Your task to perform on an android device: Go to eBay Image 0: 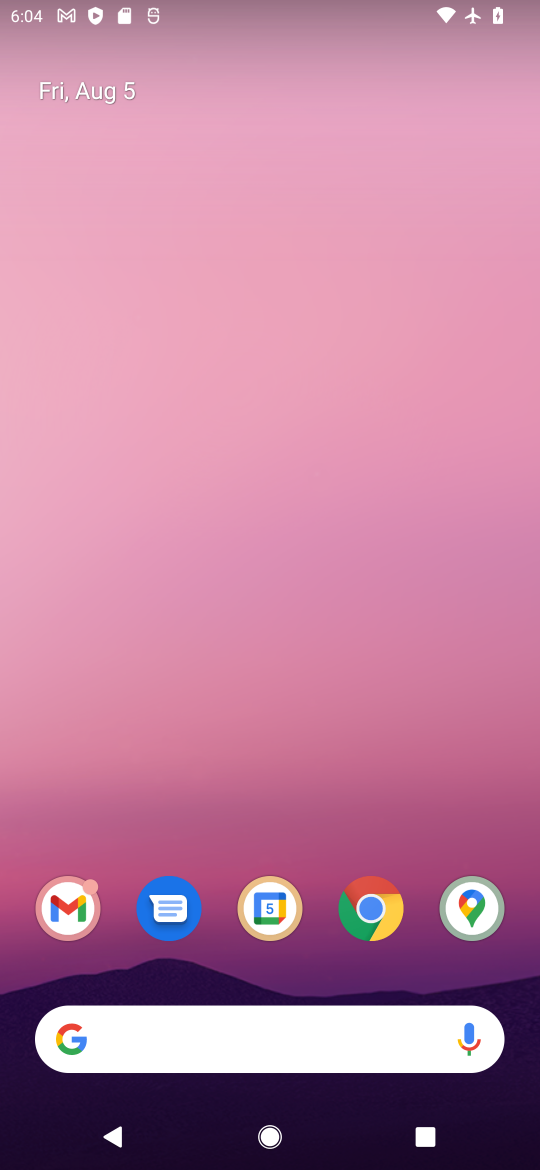
Step 0: click (379, 907)
Your task to perform on an android device: Go to eBay Image 1: 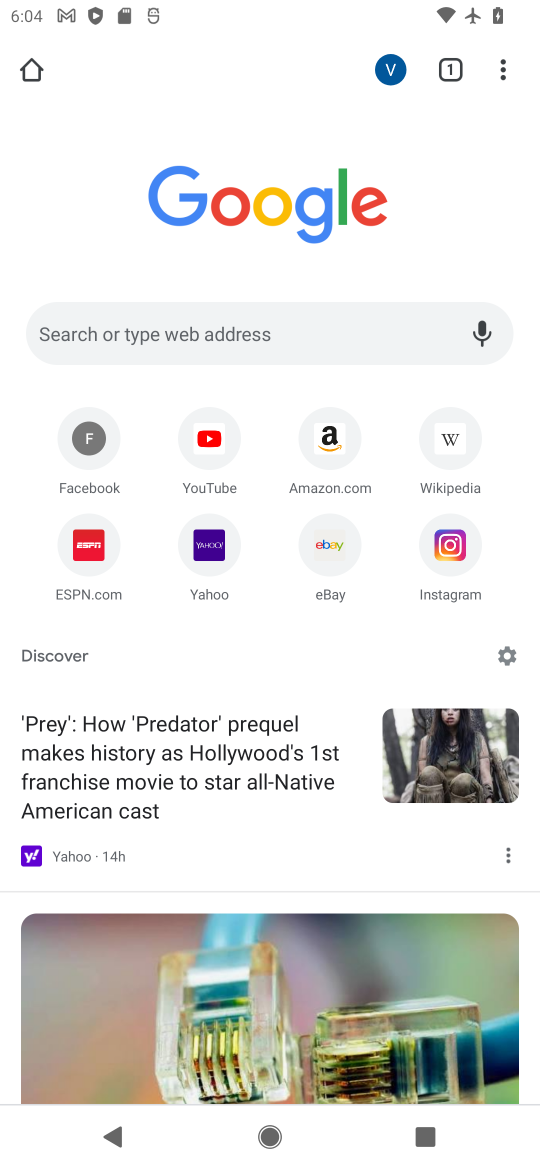
Step 1: click (328, 557)
Your task to perform on an android device: Go to eBay Image 2: 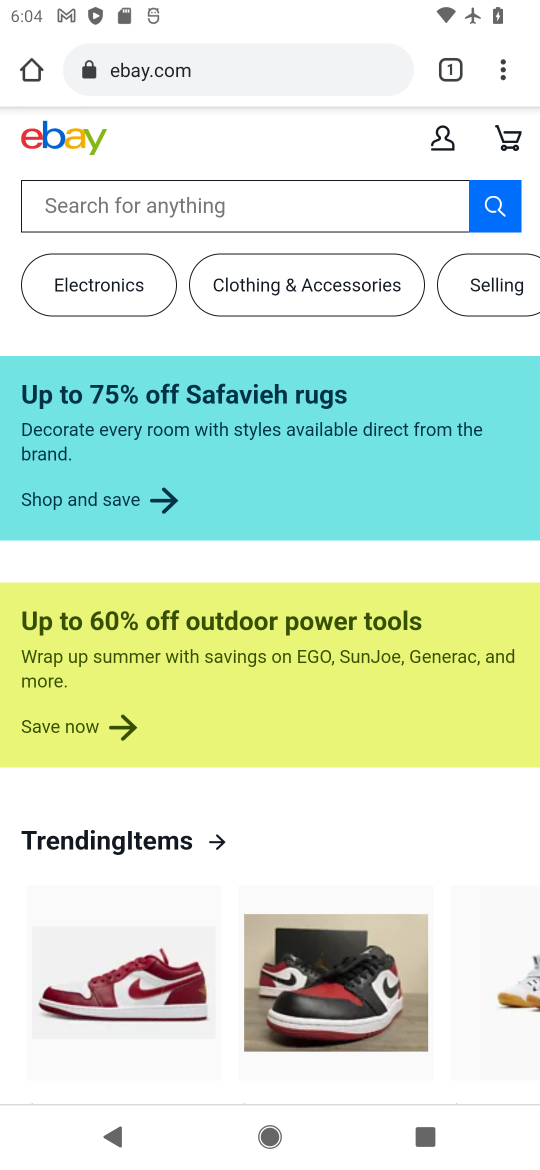
Step 2: task complete